Your task to perform on an android device: delete a single message in the gmail app Image 0: 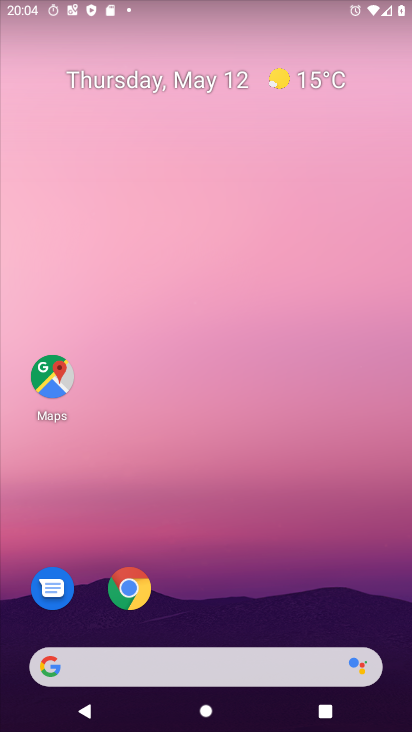
Step 0: drag from (205, 621) to (249, 211)
Your task to perform on an android device: delete a single message in the gmail app Image 1: 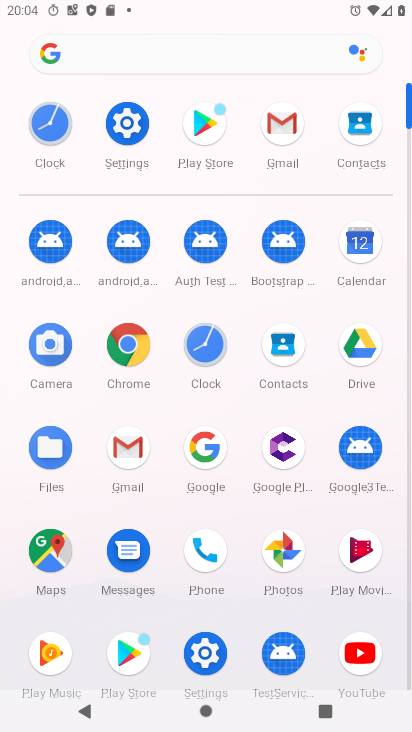
Step 1: click (288, 131)
Your task to perform on an android device: delete a single message in the gmail app Image 2: 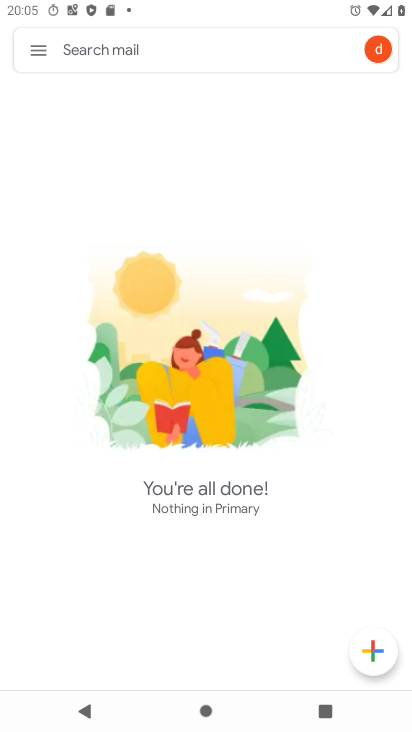
Step 2: click (40, 50)
Your task to perform on an android device: delete a single message in the gmail app Image 3: 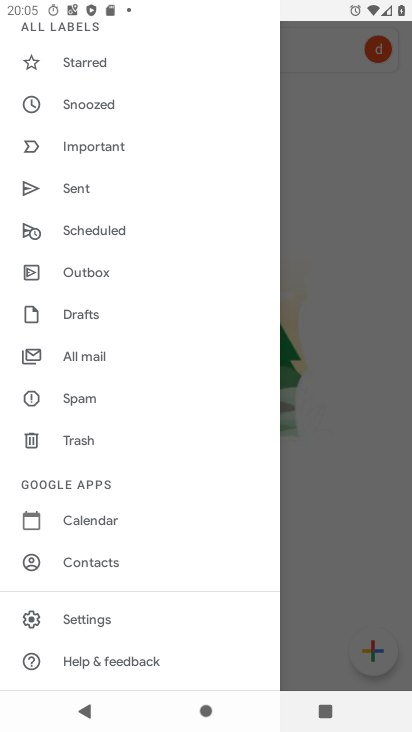
Step 3: drag from (133, 393) to (125, 527)
Your task to perform on an android device: delete a single message in the gmail app Image 4: 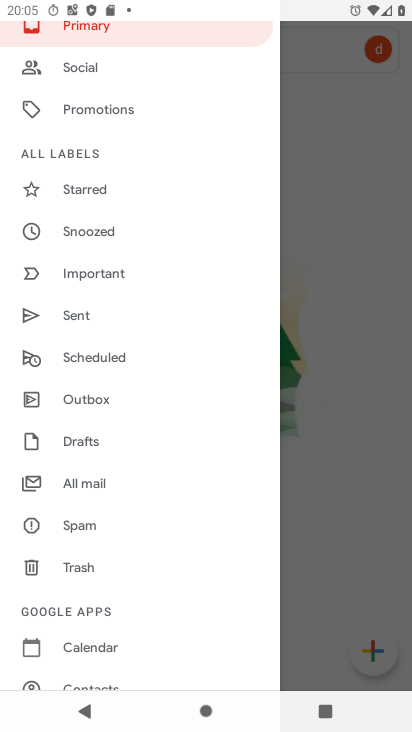
Step 4: click (88, 488)
Your task to perform on an android device: delete a single message in the gmail app Image 5: 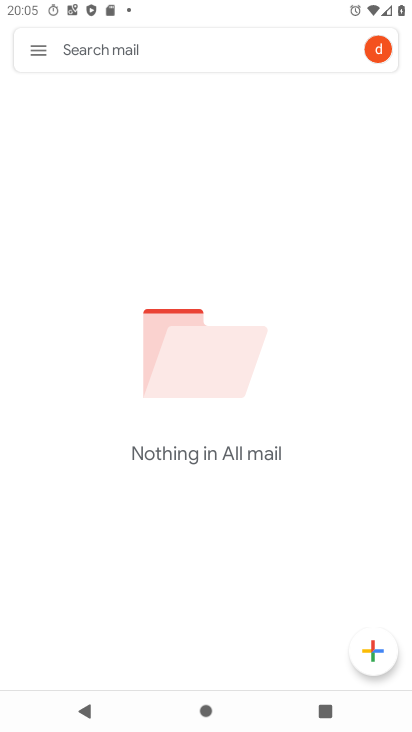
Step 5: task complete